Your task to perform on an android device: turn off javascript in the chrome app Image 0: 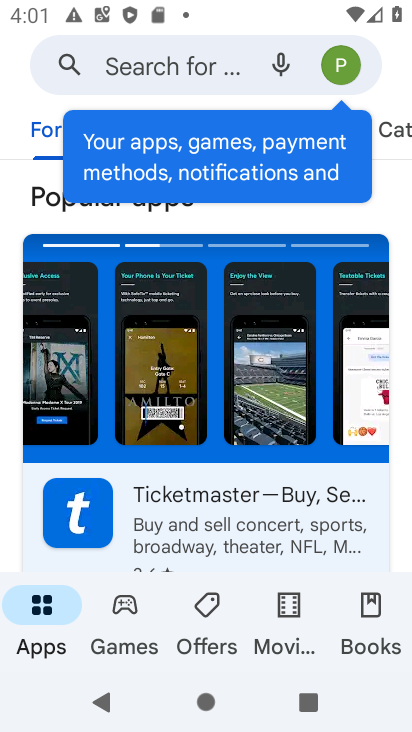
Step 0: press home button
Your task to perform on an android device: turn off javascript in the chrome app Image 1: 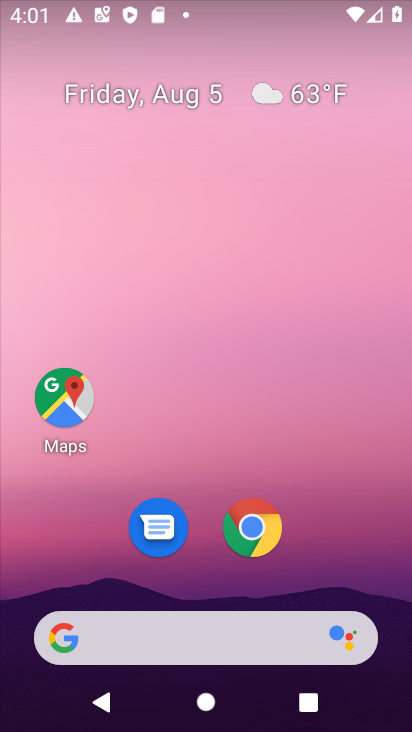
Step 1: drag from (208, 529) to (197, 167)
Your task to perform on an android device: turn off javascript in the chrome app Image 2: 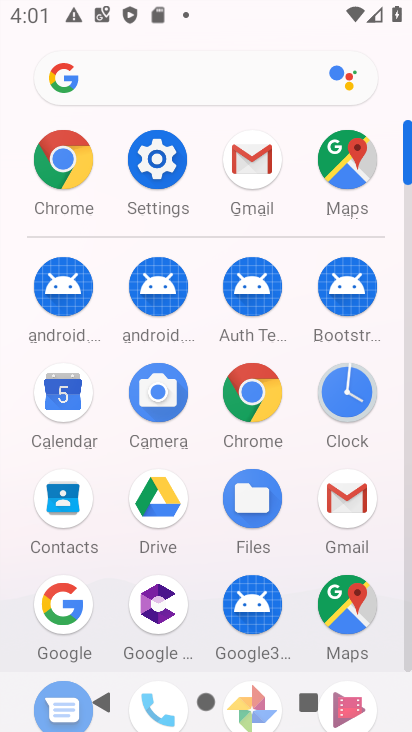
Step 2: click (67, 158)
Your task to perform on an android device: turn off javascript in the chrome app Image 3: 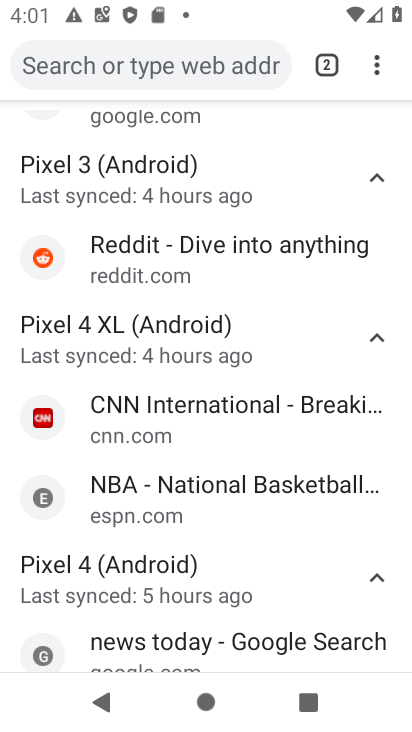
Step 3: click (378, 73)
Your task to perform on an android device: turn off javascript in the chrome app Image 4: 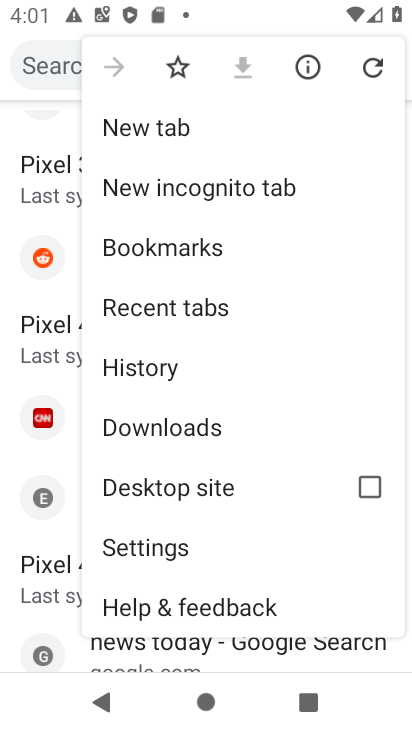
Step 4: click (161, 546)
Your task to perform on an android device: turn off javascript in the chrome app Image 5: 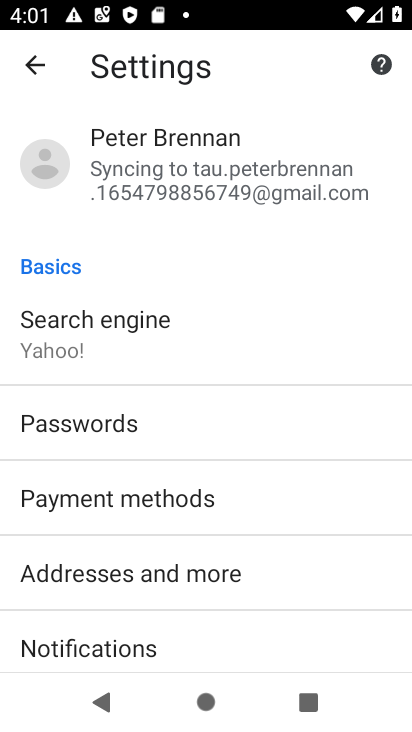
Step 5: drag from (162, 589) to (161, 243)
Your task to perform on an android device: turn off javascript in the chrome app Image 6: 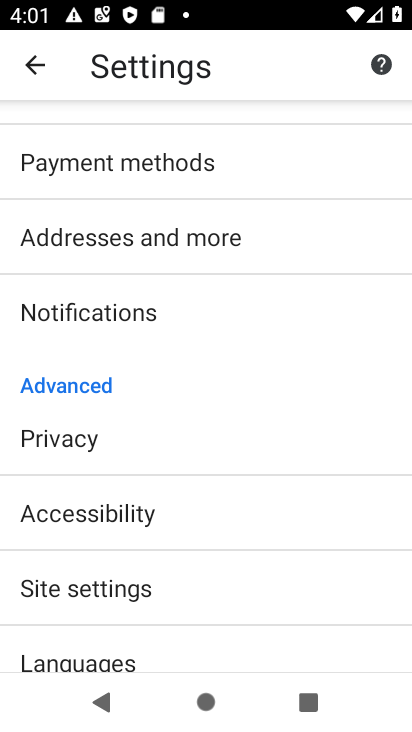
Step 6: drag from (158, 603) to (157, 297)
Your task to perform on an android device: turn off javascript in the chrome app Image 7: 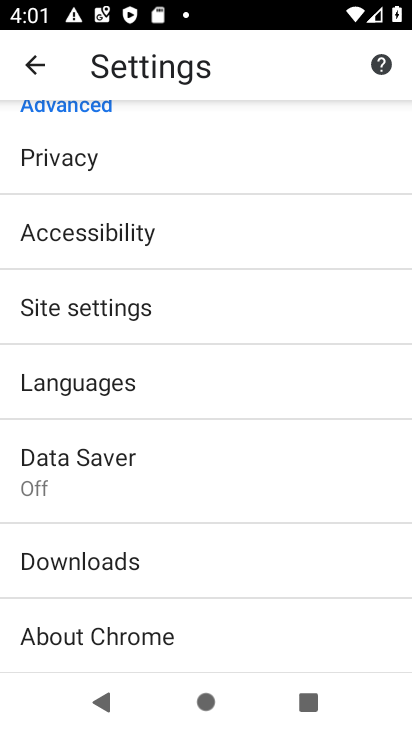
Step 7: click (119, 312)
Your task to perform on an android device: turn off javascript in the chrome app Image 8: 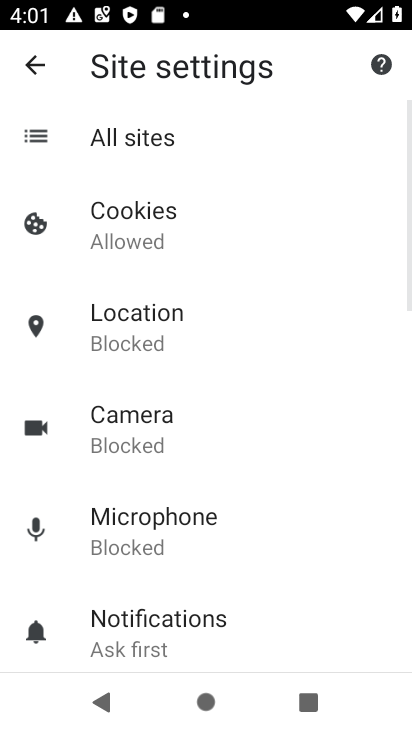
Step 8: drag from (169, 626) to (186, 201)
Your task to perform on an android device: turn off javascript in the chrome app Image 9: 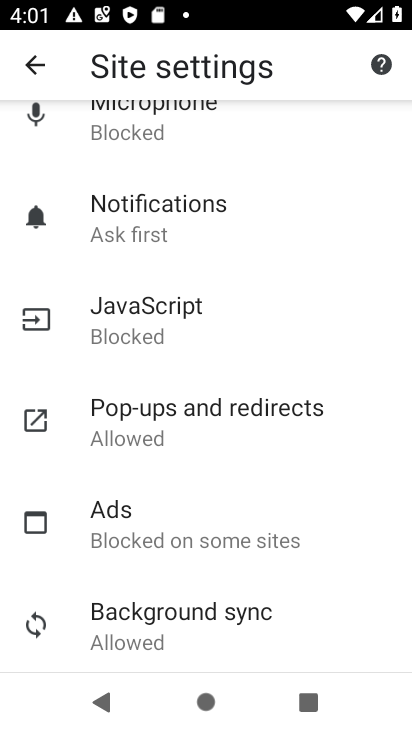
Step 9: drag from (174, 579) to (175, 448)
Your task to perform on an android device: turn off javascript in the chrome app Image 10: 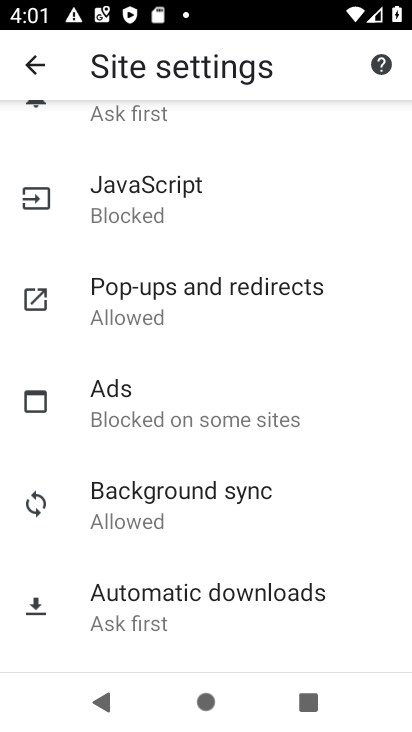
Step 10: click (137, 195)
Your task to perform on an android device: turn off javascript in the chrome app Image 11: 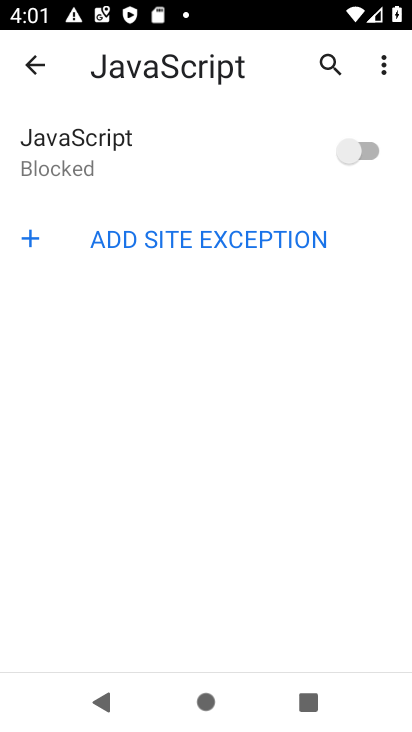
Step 11: task complete